Your task to perform on an android device: Check the news Image 0: 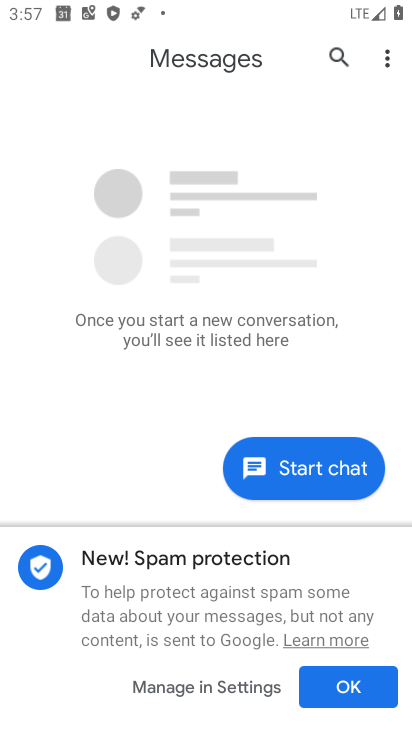
Step 0: press home button
Your task to perform on an android device: Check the news Image 1: 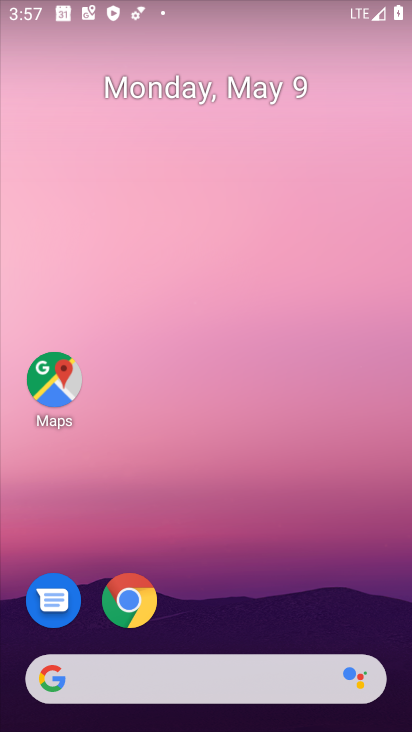
Step 1: drag from (203, 640) to (207, 109)
Your task to perform on an android device: Check the news Image 2: 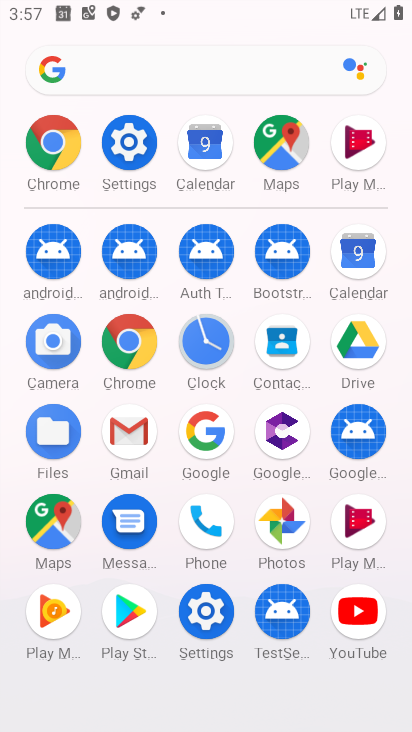
Step 2: click (112, 344)
Your task to perform on an android device: Check the news Image 3: 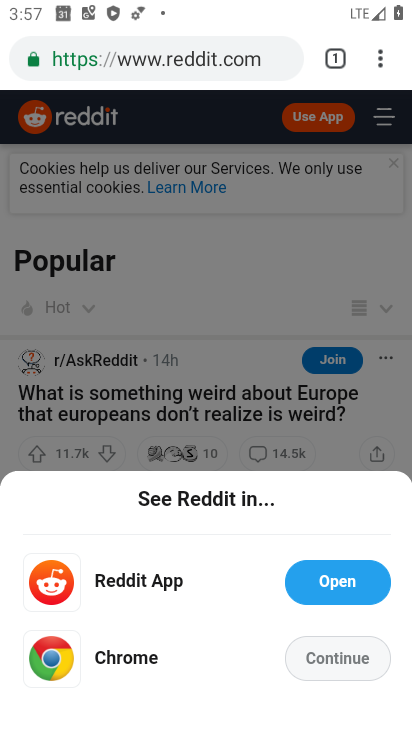
Step 3: click (247, 58)
Your task to perform on an android device: Check the news Image 4: 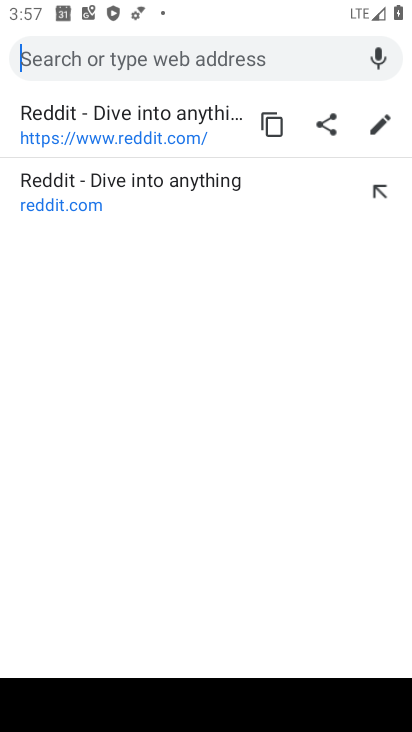
Step 4: type "news"
Your task to perform on an android device: Check the news Image 5: 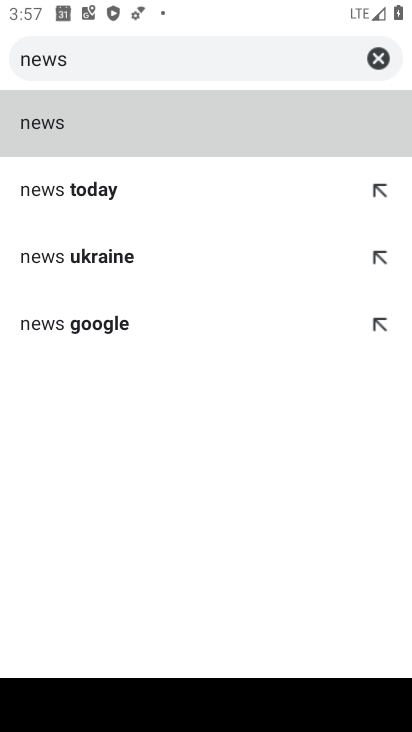
Step 5: click (155, 134)
Your task to perform on an android device: Check the news Image 6: 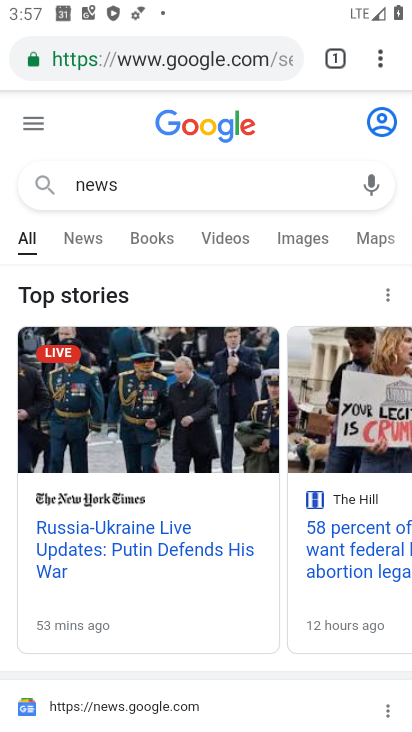
Step 6: task complete